Your task to perform on an android device: change notifications settings Image 0: 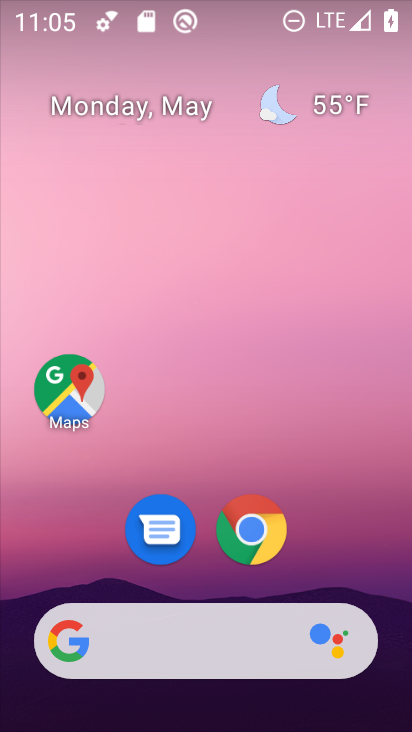
Step 0: drag from (210, 626) to (187, 109)
Your task to perform on an android device: change notifications settings Image 1: 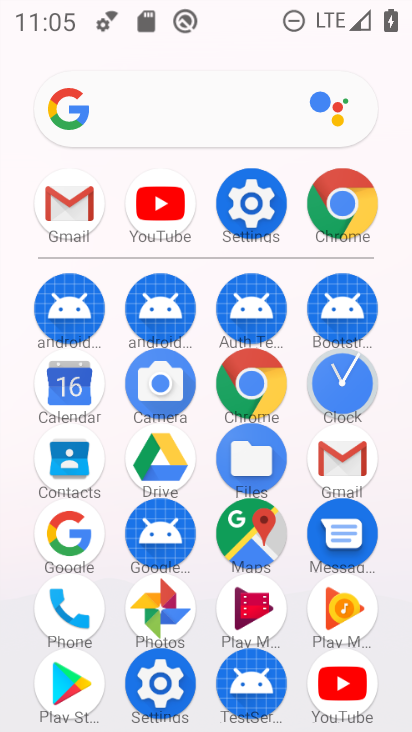
Step 1: click (155, 675)
Your task to perform on an android device: change notifications settings Image 2: 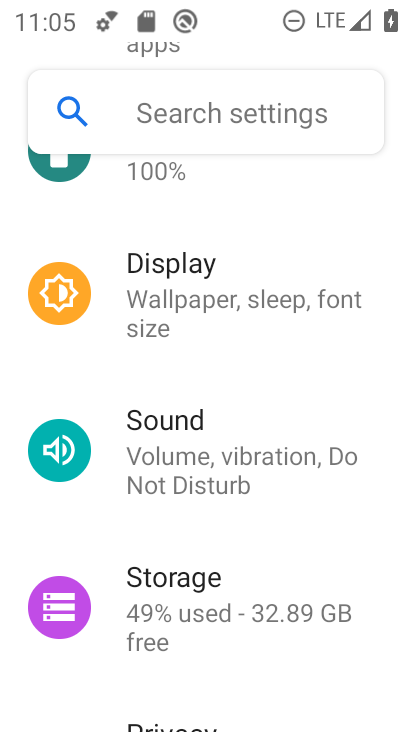
Step 2: click (166, 431)
Your task to perform on an android device: change notifications settings Image 3: 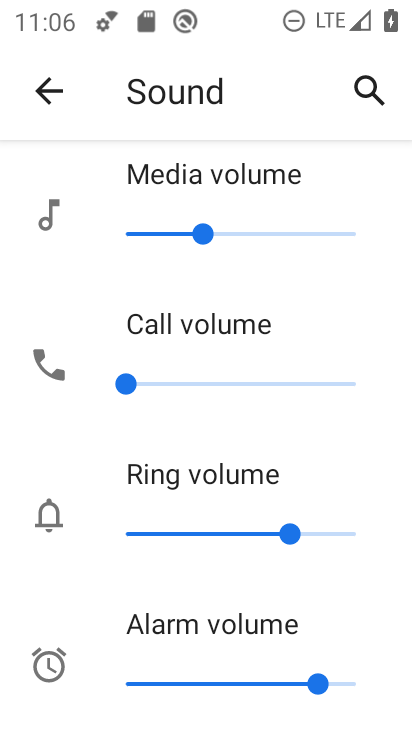
Step 3: drag from (148, 614) to (159, 264)
Your task to perform on an android device: change notifications settings Image 4: 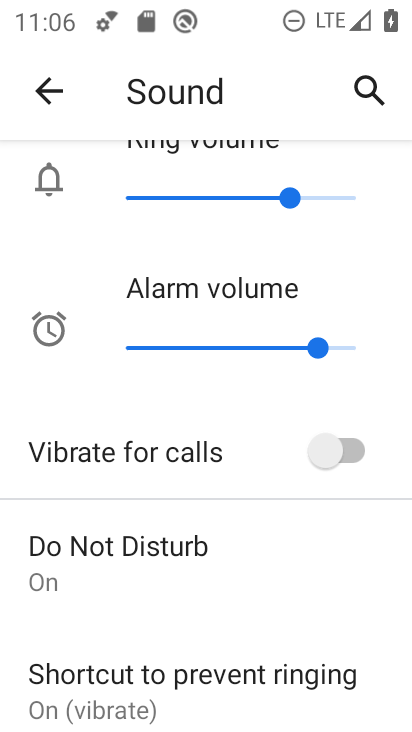
Step 4: click (349, 441)
Your task to perform on an android device: change notifications settings Image 5: 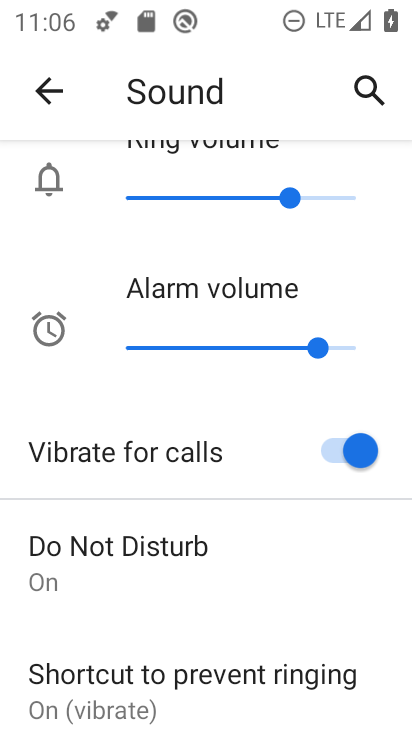
Step 5: task complete